Your task to perform on an android device: What is the news today? Image 0: 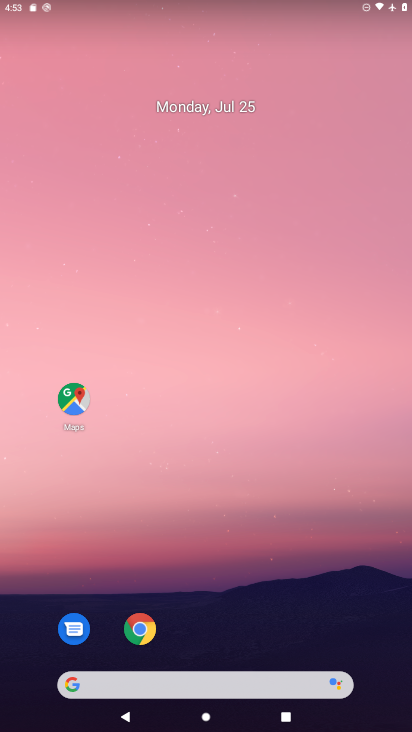
Step 0: drag from (134, 670) to (157, 76)
Your task to perform on an android device: What is the news today? Image 1: 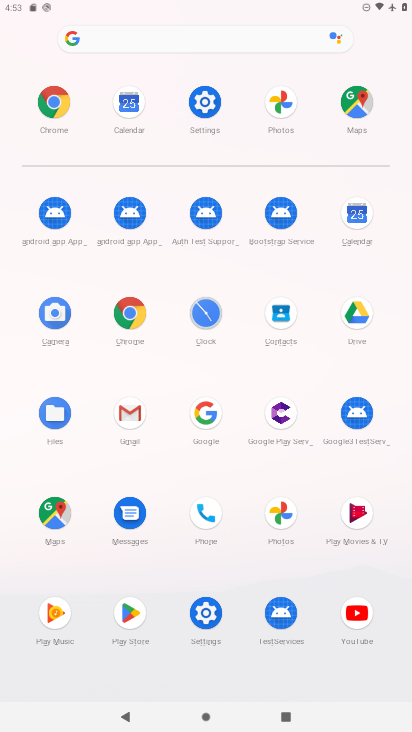
Step 1: click (122, 324)
Your task to perform on an android device: What is the news today? Image 2: 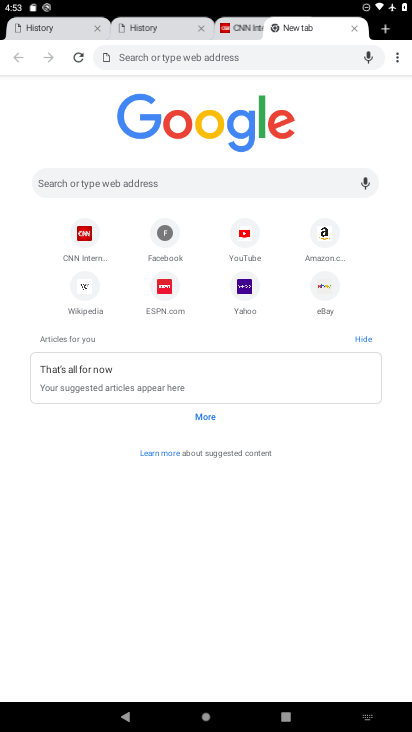
Step 2: click (223, 60)
Your task to perform on an android device: What is the news today? Image 3: 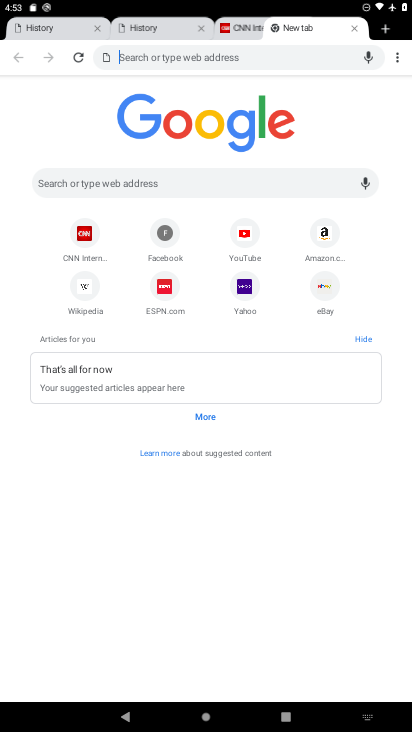
Step 3: type "news today"
Your task to perform on an android device: What is the news today? Image 4: 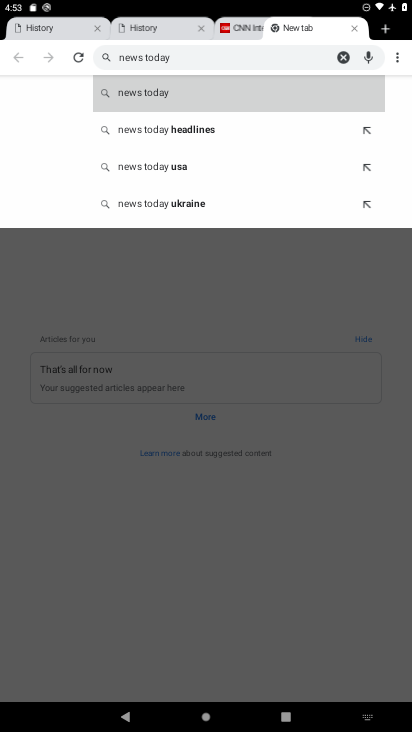
Step 4: click (219, 86)
Your task to perform on an android device: What is the news today? Image 5: 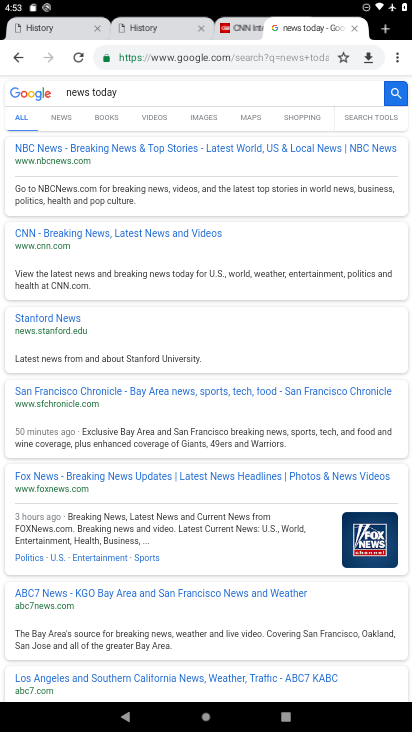
Step 5: task complete